Your task to perform on an android device: open app "Fetch Rewards" (install if not already installed) and enter user name: "Westwood@yahoo.com" and password: "qualifying" Image 0: 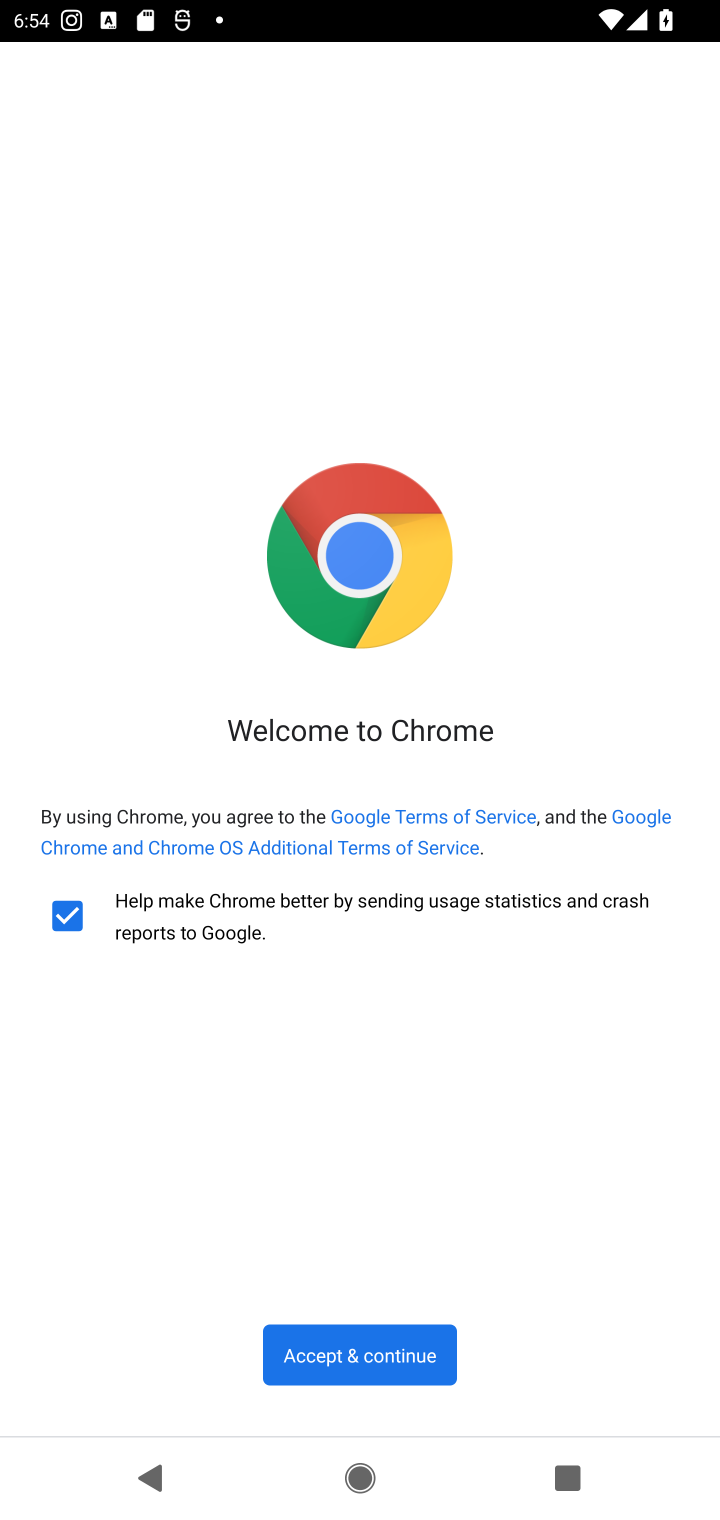
Step 0: press home button
Your task to perform on an android device: open app "Fetch Rewards" (install if not already installed) and enter user name: "Westwood@yahoo.com" and password: "qualifying" Image 1: 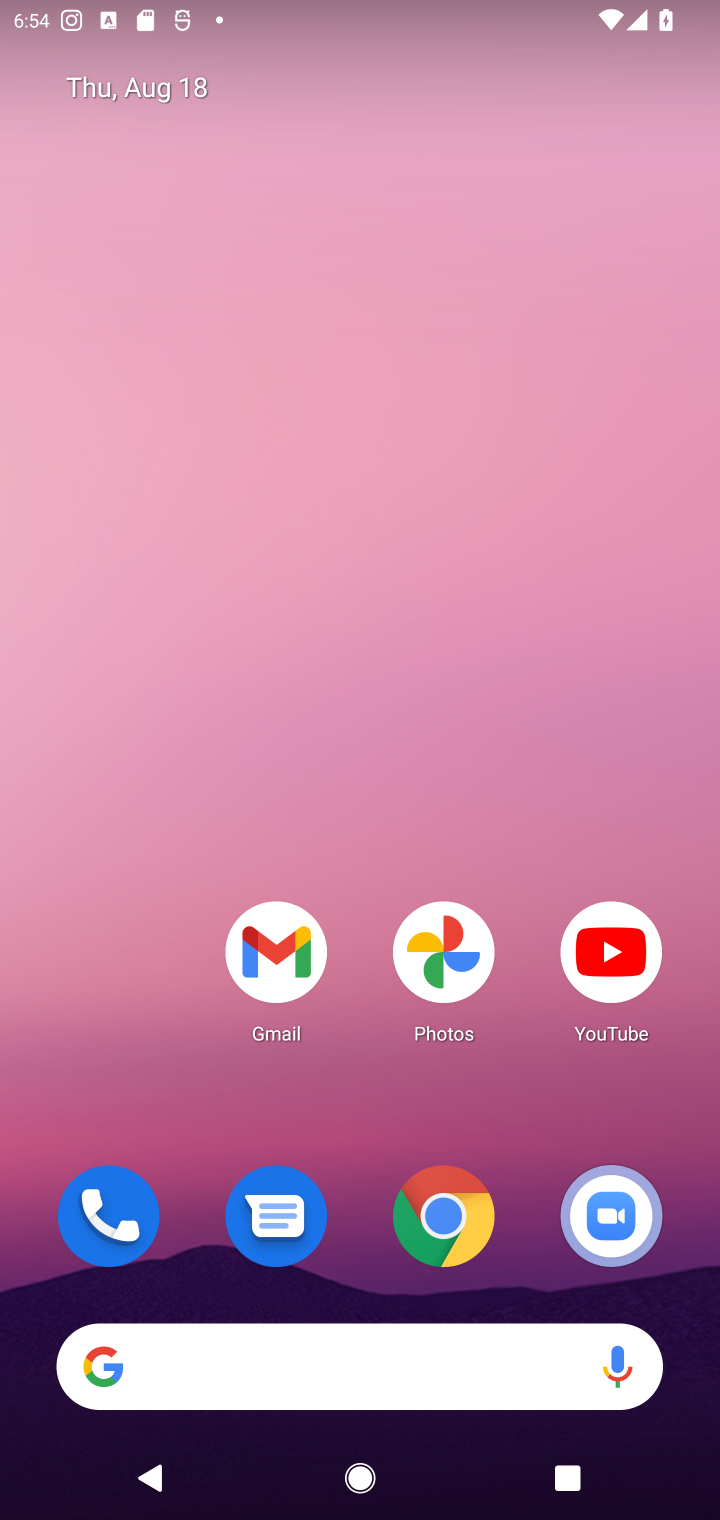
Step 1: drag from (331, 1071) to (384, 313)
Your task to perform on an android device: open app "Fetch Rewards" (install if not already installed) and enter user name: "Westwood@yahoo.com" and password: "qualifying" Image 2: 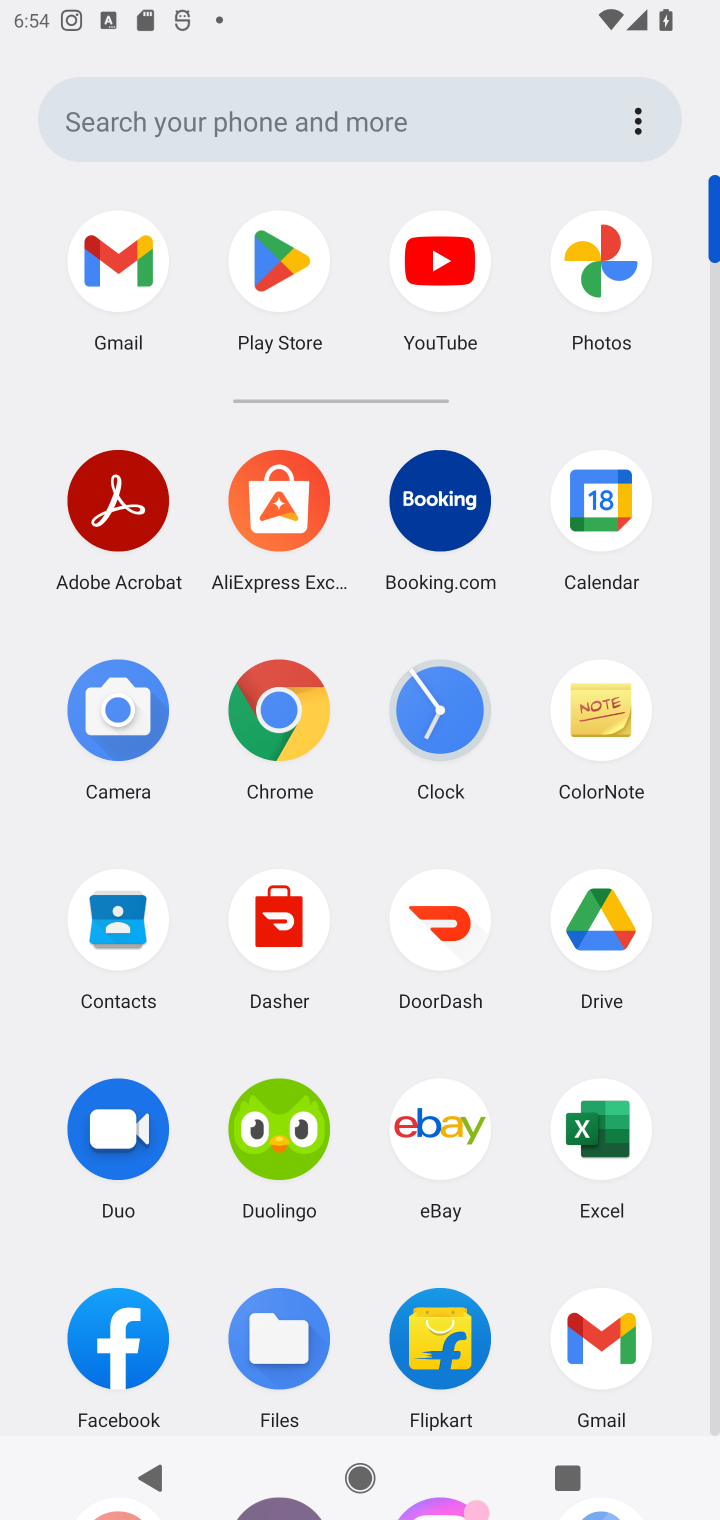
Step 2: click (294, 260)
Your task to perform on an android device: open app "Fetch Rewards" (install if not already installed) and enter user name: "Westwood@yahoo.com" and password: "qualifying" Image 3: 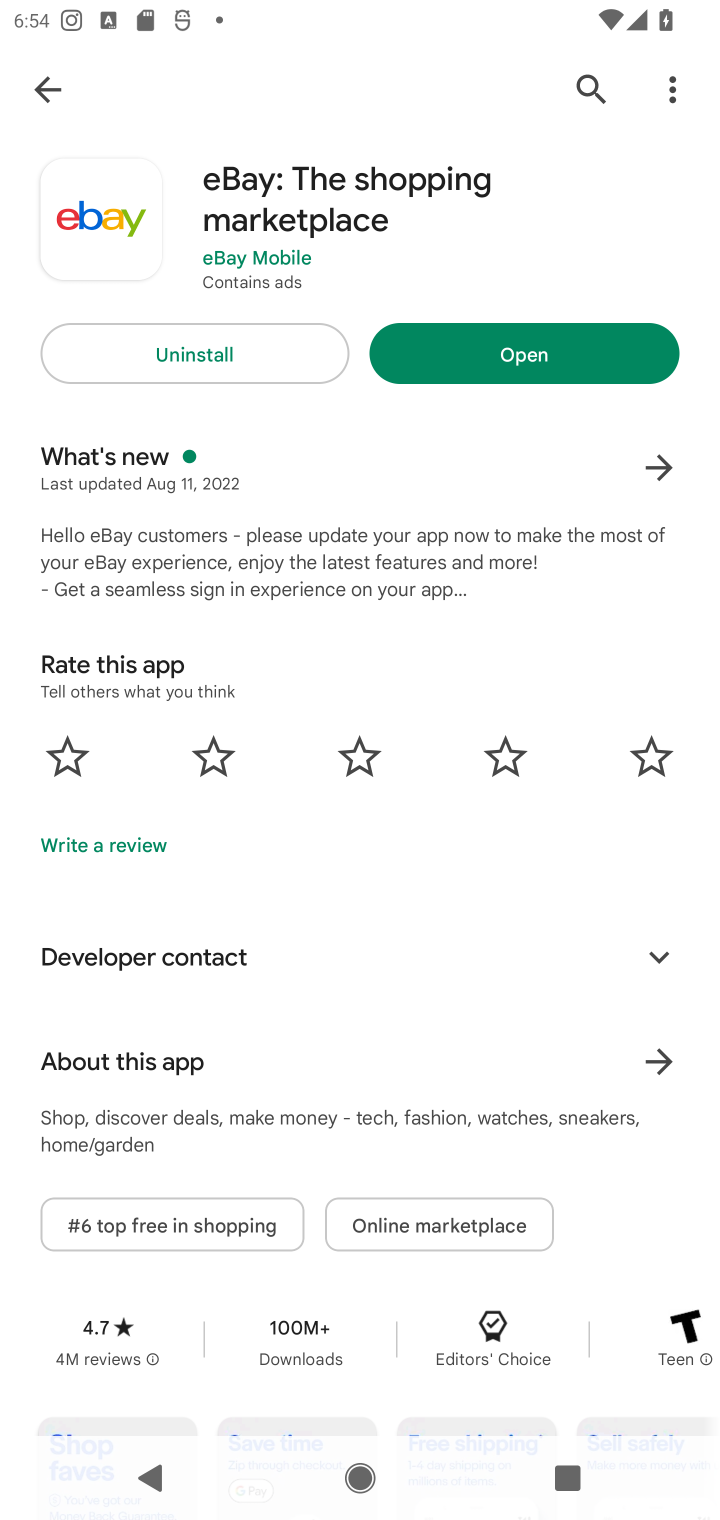
Step 3: click (577, 96)
Your task to perform on an android device: open app "Fetch Rewards" (install if not already installed) and enter user name: "Westwood@yahoo.com" and password: "qualifying" Image 4: 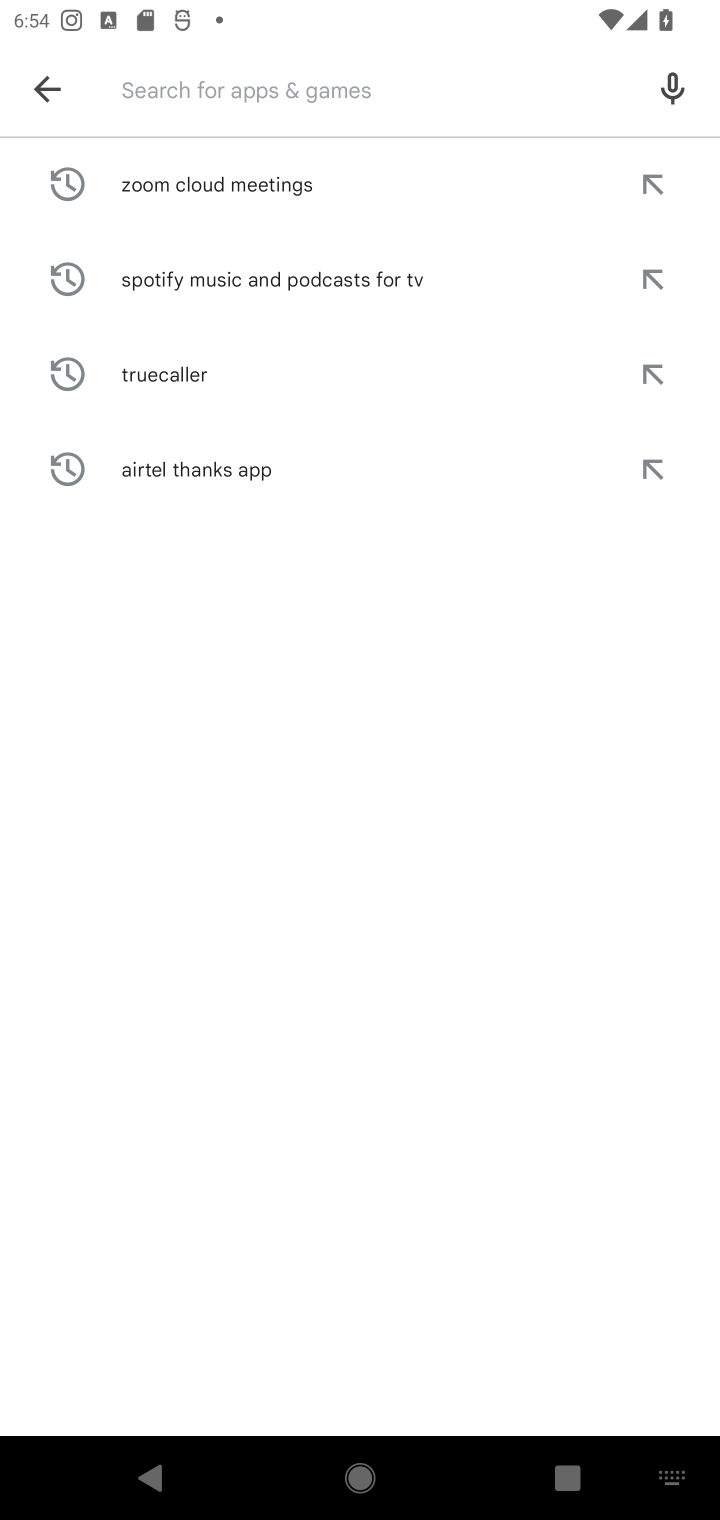
Step 4: type "Fetch Rewards"
Your task to perform on an android device: open app "Fetch Rewards" (install if not already installed) and enter user name: "Westwood@yahoo.com" and password: "qualifying" Image 5: 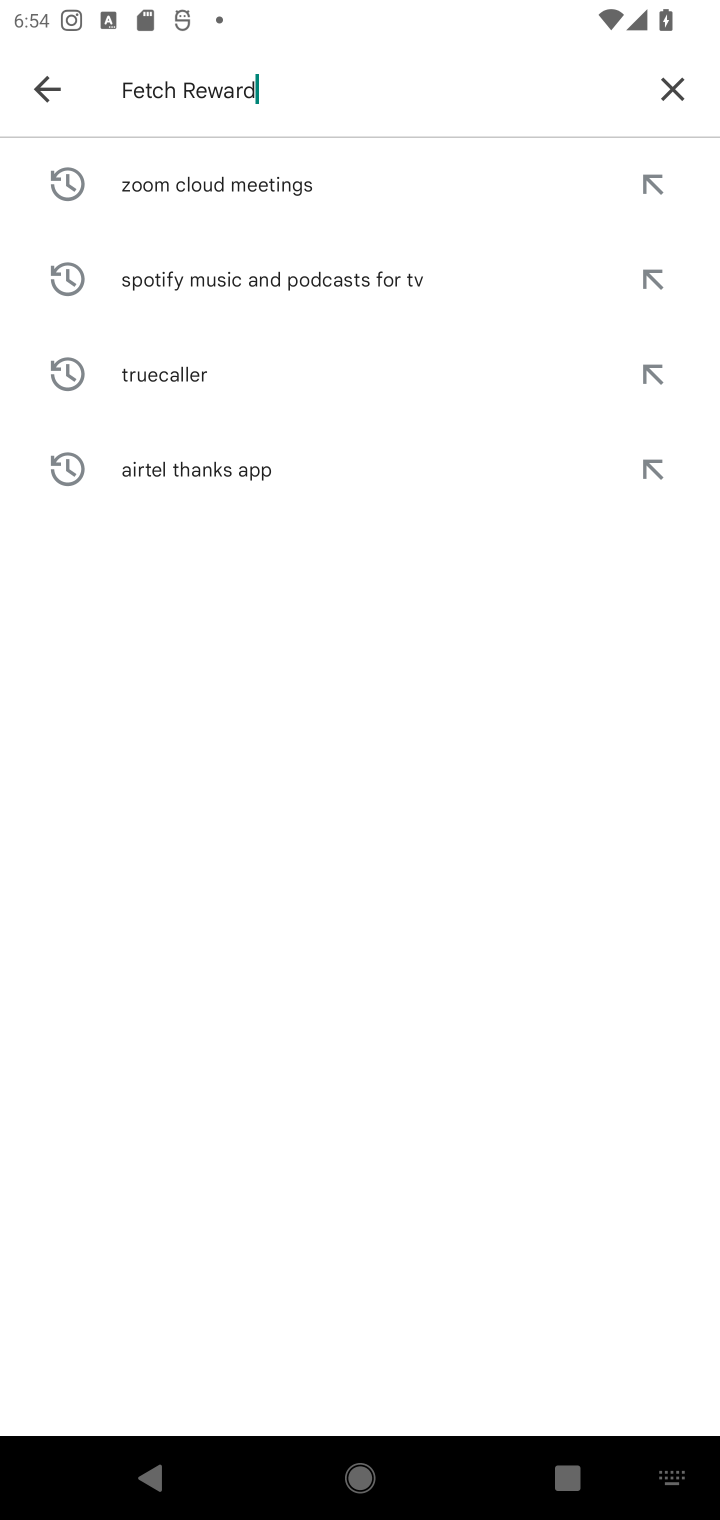
Step 5: type ""
Your task to perform on an android device: open app "Fetch Rewards" (install if not already installed) and enter user name: "Westwood@yahoo.com" and password: "qualifying" Image 6: 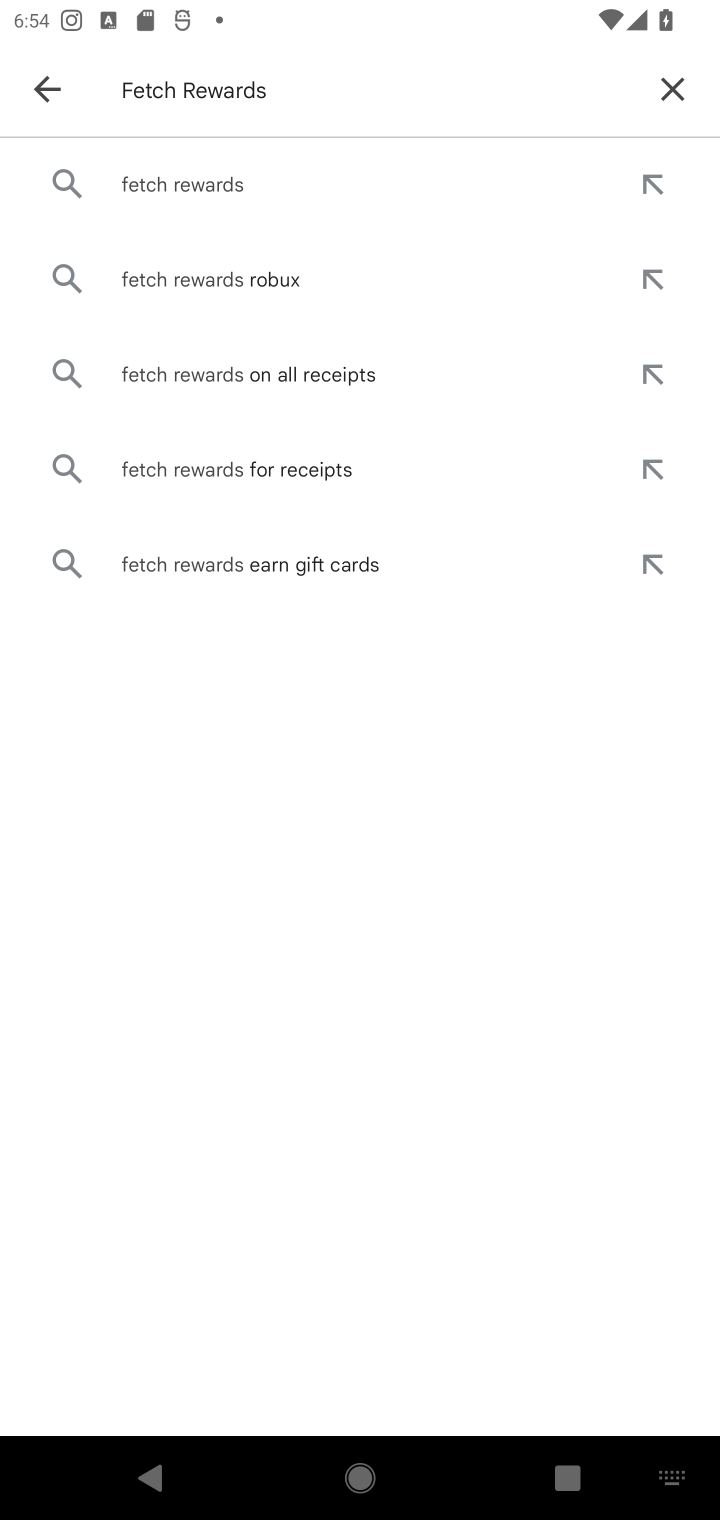
Step 6: click (271, 161)
Your task to perform on an android device: open app "Fetch Rewards" (install if not already installed) and enter user name: "Westwood@yahoo.com" and password: "qualifying" Image 7: 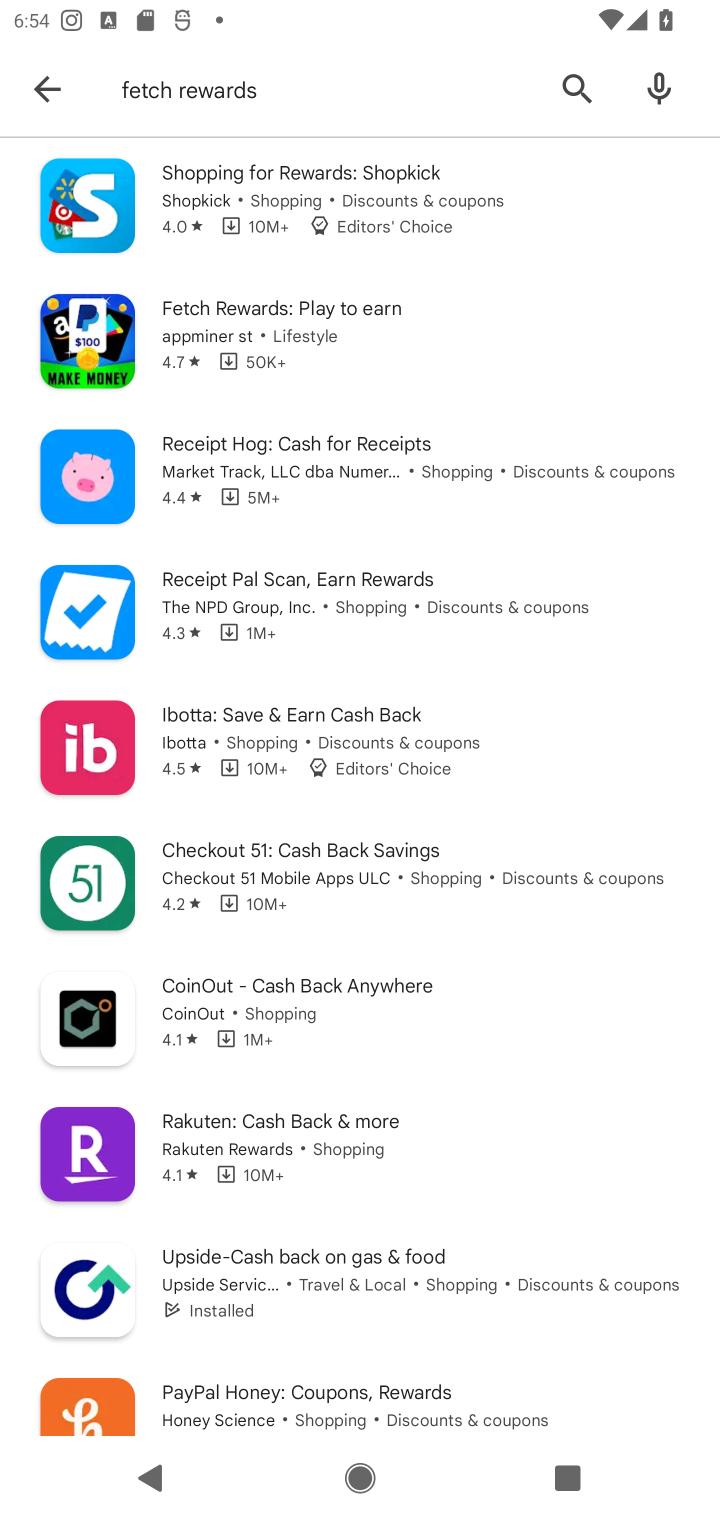
Step 7: task complete